Your task to perform on an android device: open chrome privacy settings Image 0: 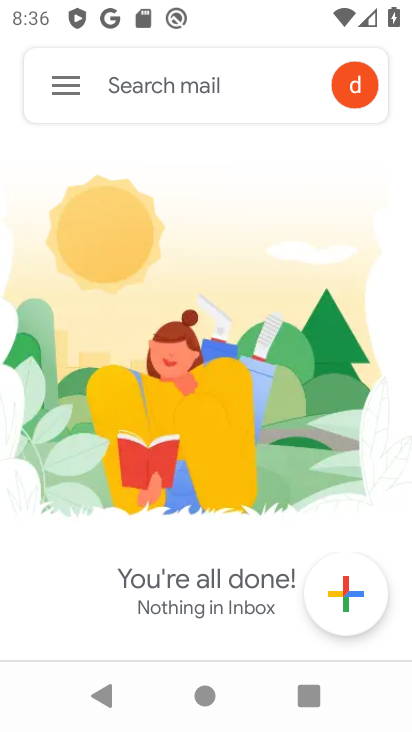
Step 0: press back button
Your task to perform on an android device: open chrome privacy settings Image 1: 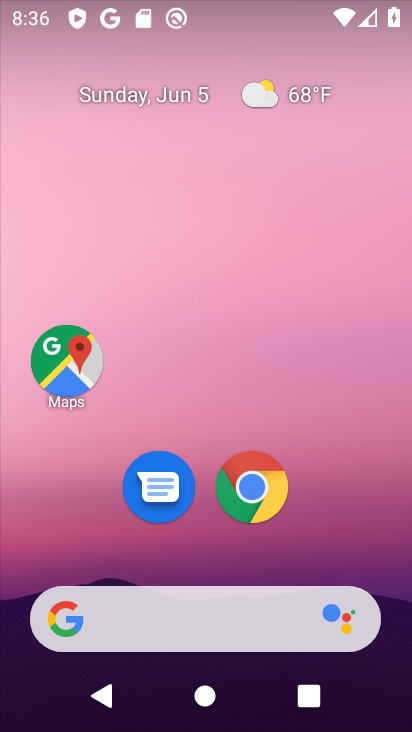
Step 1: click (254, 482)
Your task to perform on an android device: open chrome privacy settings Image 2: 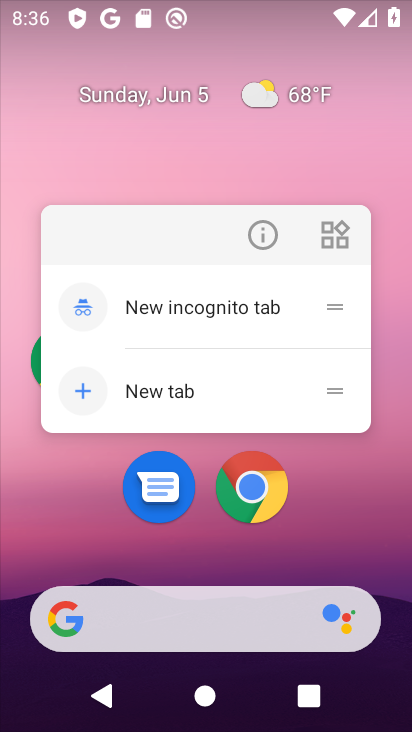
Step 2: click (255, 482)
Your task to perform on an android device: open chrome privacy settings Image 3: 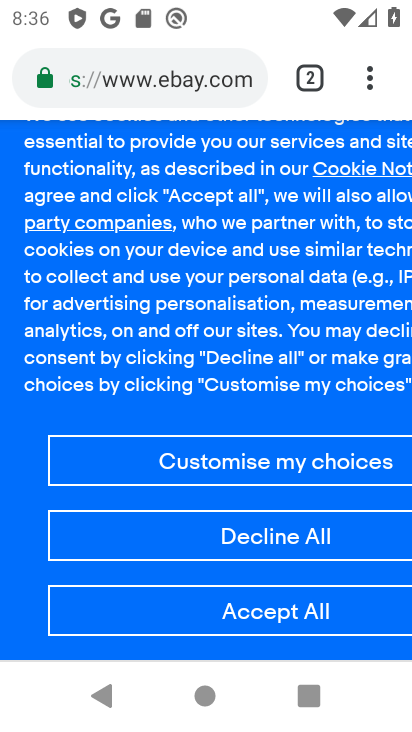
Step 3: drag from (368, 88) to (164, 539)
Your task to perform on an android device: open chrome privacy settings Image 4: 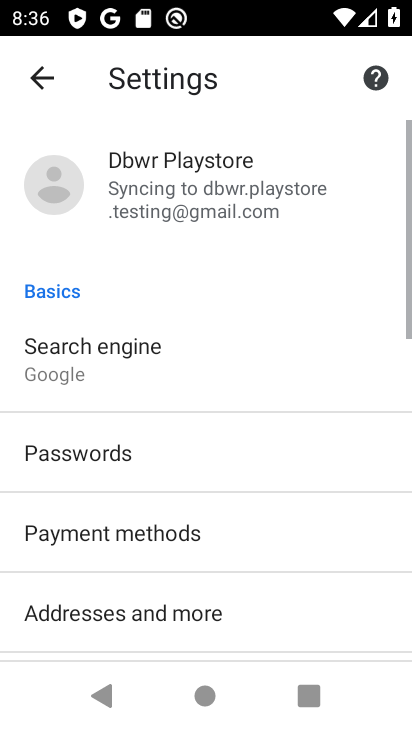
Step 4: drag from (165, 543) to (228, 69)
Your task to perform on an android device: open chrome privacy settings Image 5: 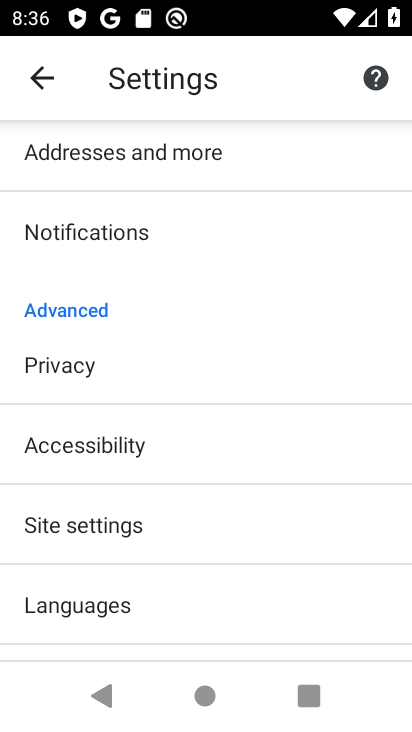
Step 5: click (66, 373)
Your task to perform on an android device: open chrome privacy settings Image 6: 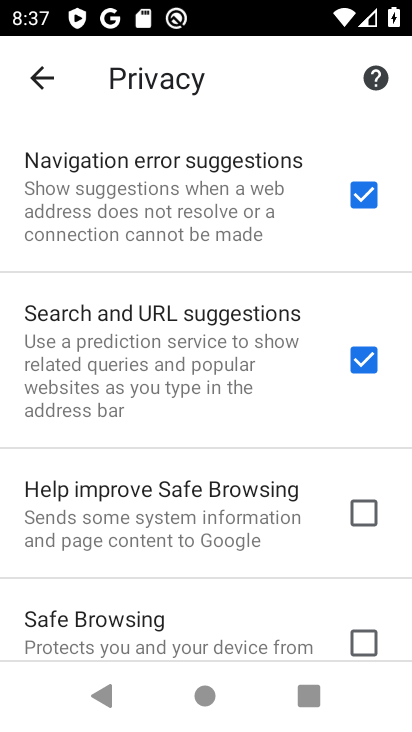
Step 6: task complete